Your task to perform on an android device: Go to Amazon Image 0: 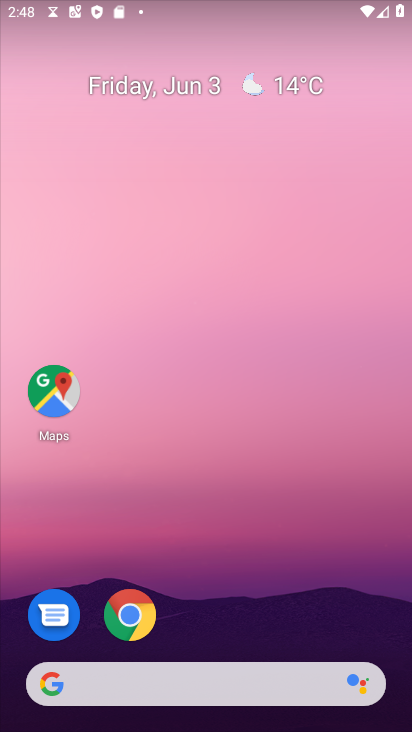
Step 0: press home button
Your task to perform on an android device: Go to Amazon Image 1: 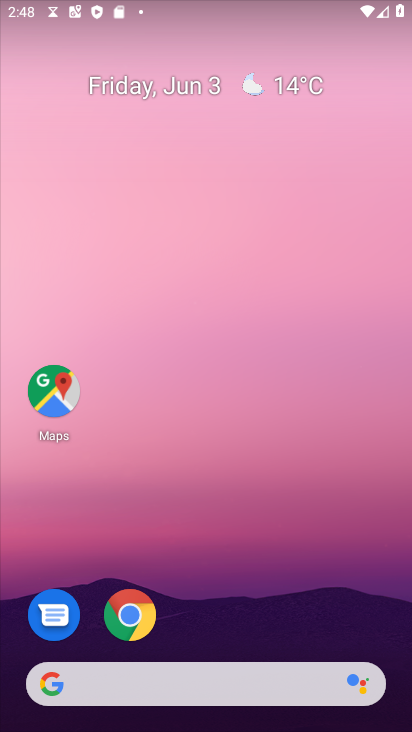
Step 1: click (54, 681)
Your task to perform on an android device: Go to Amazon Image 2: 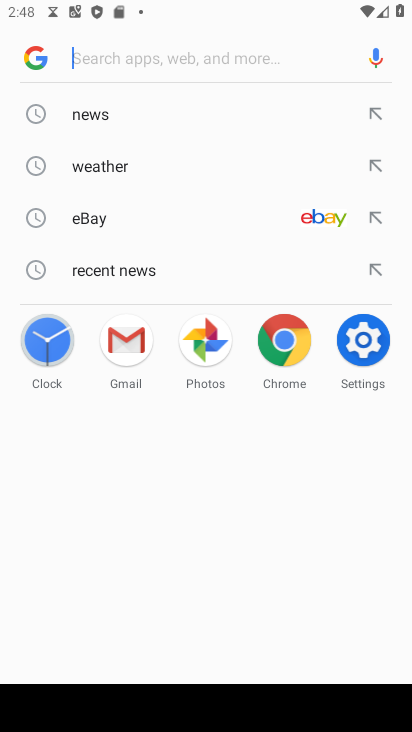
Step 2: type " Amazon"
Your task to perform on an android device: Go to Amazon Image 3: 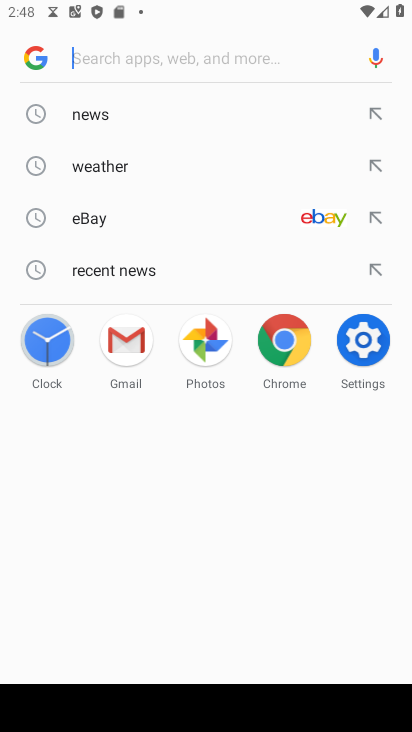
Step 3: click (178, 59)
Your task to perform on an android device: Go to Amazon Image 4: 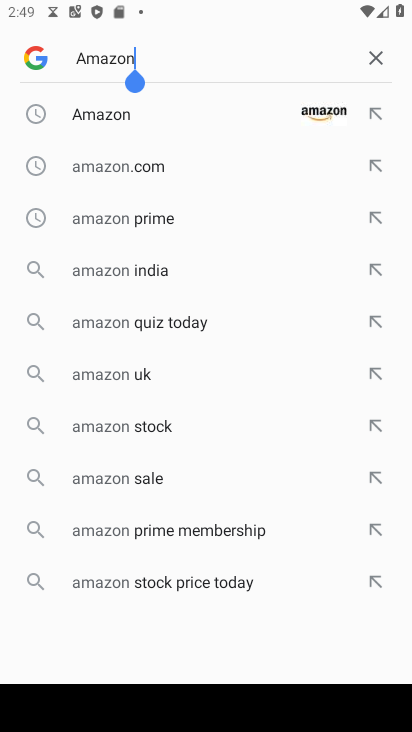
Step 4: click (102, 120)
Your task to perform on an android device: Go to Amazon Image 5: 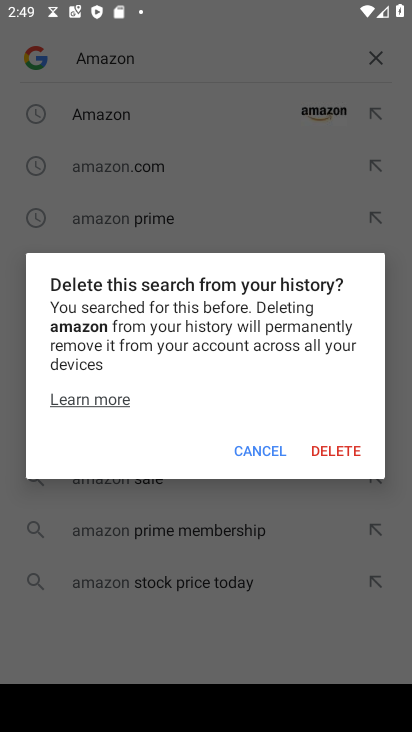
Step 5: click (253, 447)
Your task to perform on an android device: Go to Amazon Image 6: 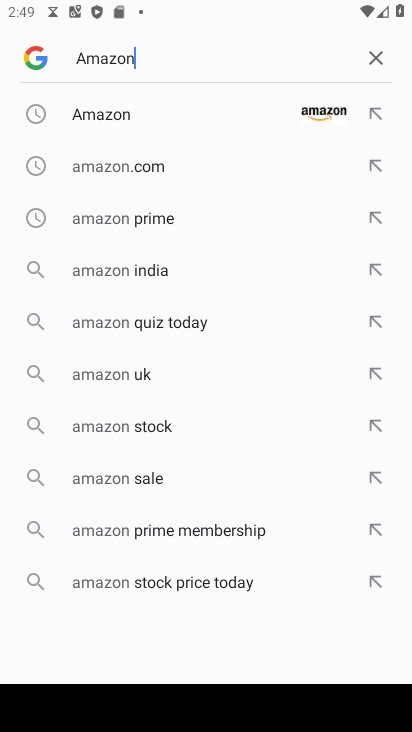
Step 6: click (121, 117)
Your task to perform on an android device: Go to Amazon Image 7: 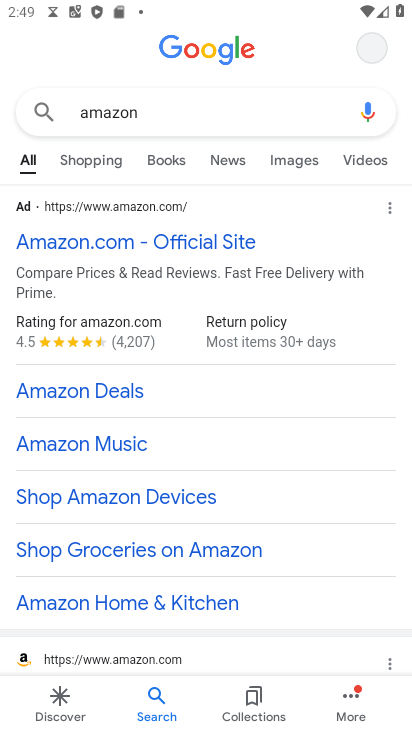
Step 7: click (149, 243)
Your task to perform on an android device: Go to Amazon Image 8: 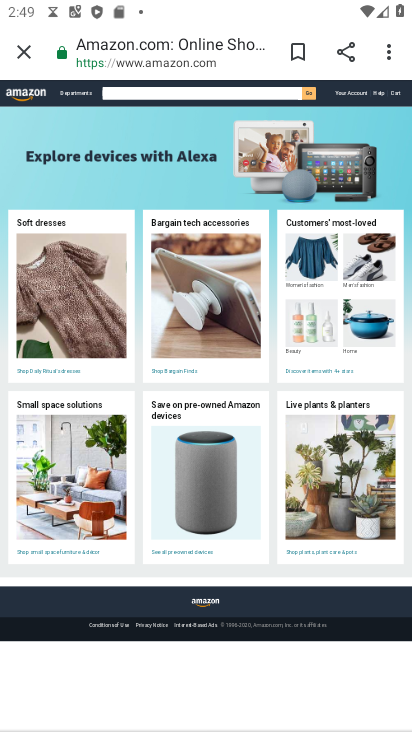
Step 8: task complete